Your task to perform on an android device: turn on notifications settings in the gmail app Image 0: 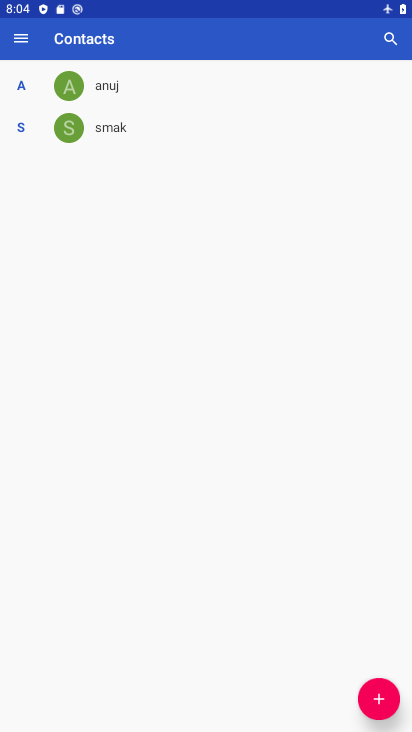
Step 0: press home button
Your task to perform on an android device: turn on notifications settings in the gmail app Image 1: 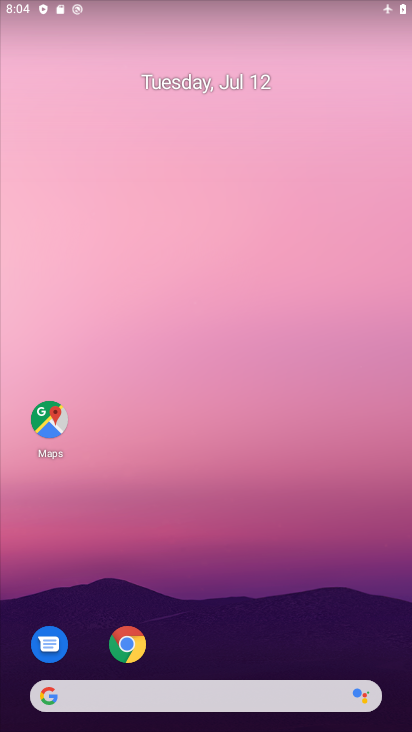
Step 1: drag from (211, 642) to (210, 237)
Your task to perform on an android device: turn on notifications settings in the gmail app Image 2: 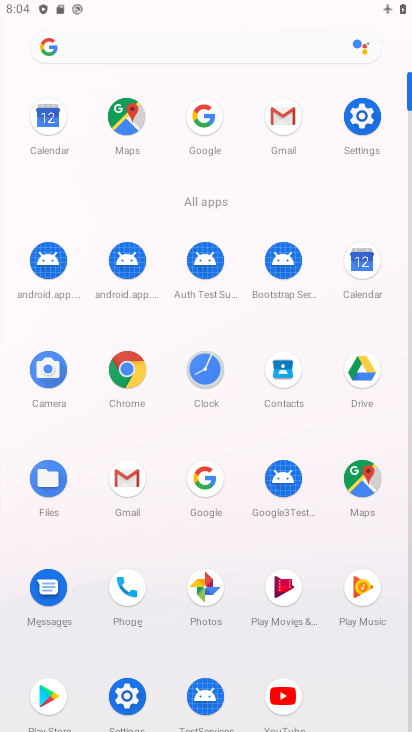
Step 2: click (271, 101)
Your task to perform on an android device: turn on notifications settings in the gmail app Image 3: 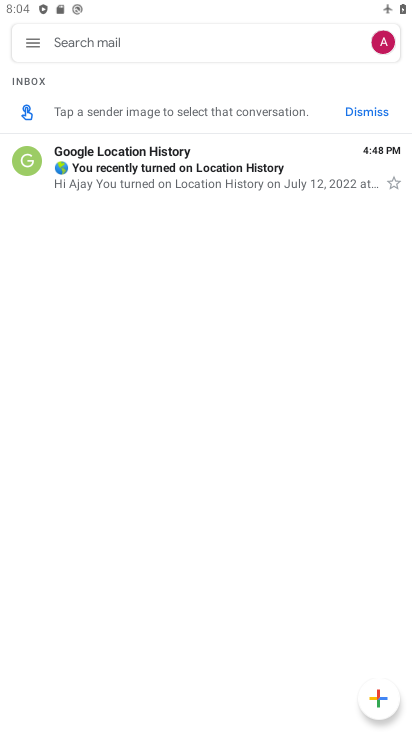
Step 3: click (36, 49)
Your task to perform on an android device: turn on notifications settings in the gmail app Image 4: 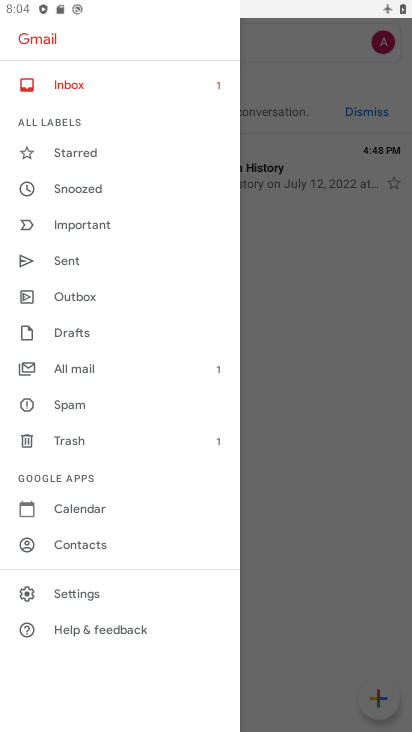
Step 4: click (95, 593)
Your task to perform on an android device: turn on notifications settings in the gmail app Image 5: 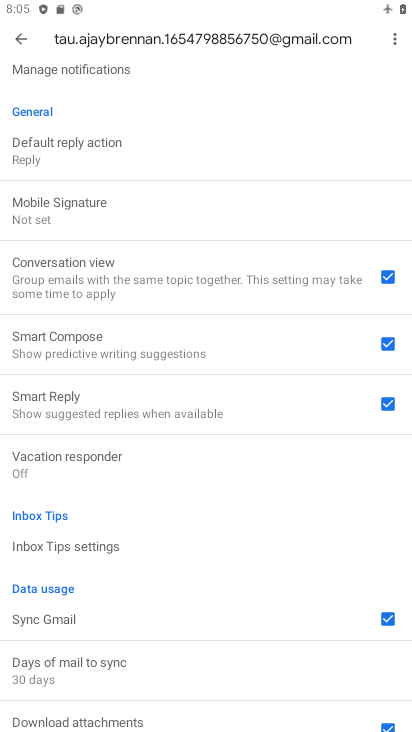
Step 5: drag from (190, 596) to (225, 622)
Your task to perform on an android device: turn on notifications settings in the gmail app Image 6: 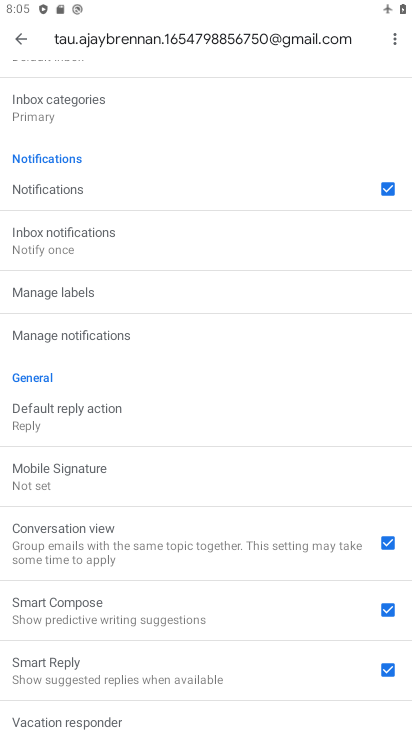
Step 6: click (122, 344)
Your task to perform on an android device: turn on notifications settings in the gmail app Image 7: 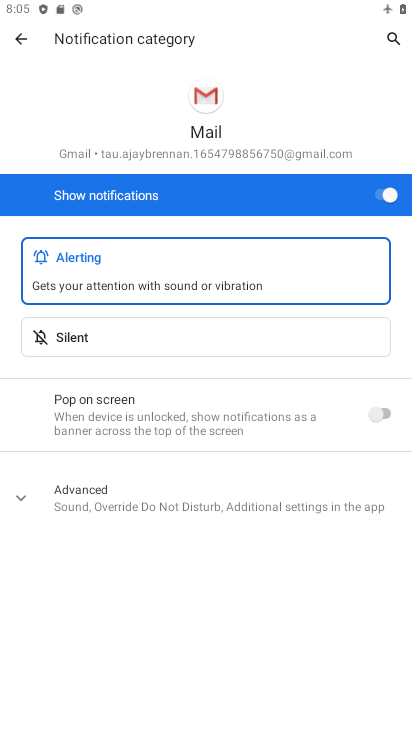
Step 7: task complete